Your task to perform on an android device: Open Reddit.com Image 0: 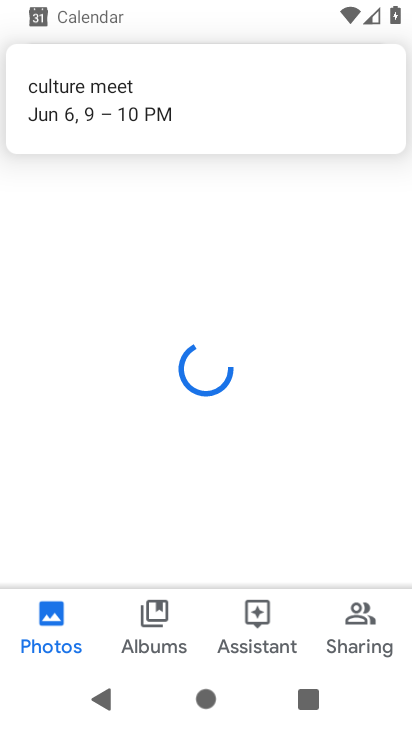
Step 0: press home button
Your task to perform on an android device: Open Reddit.com Image 1: 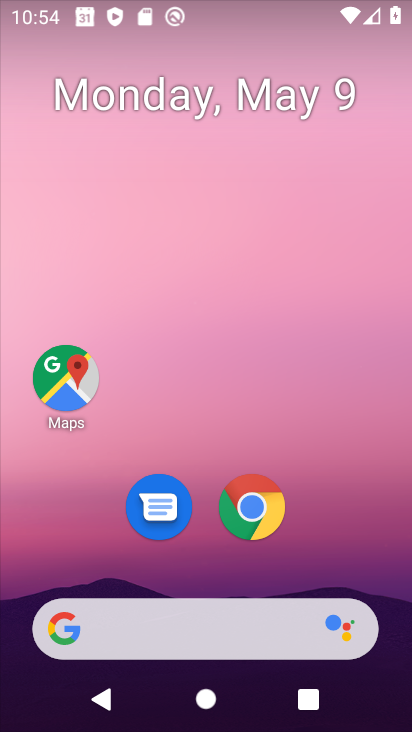
Step 1: click (256, 508)
Your task to perform on an android device: Open Reddit.com Image 2: 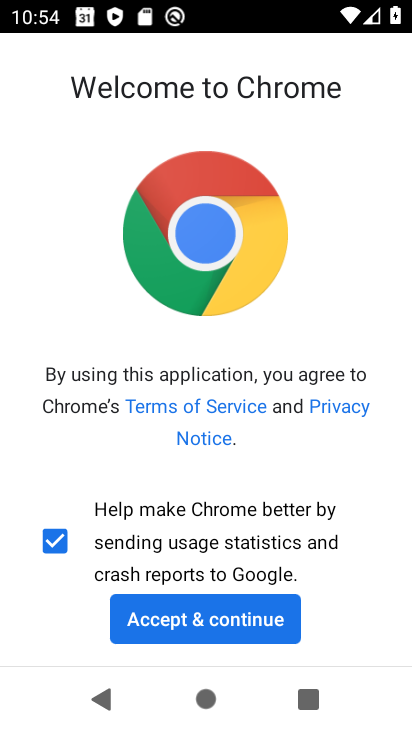
Step 2: click (236, 610)
Your task to perform on an android device: Open Reddit.com Image 3: 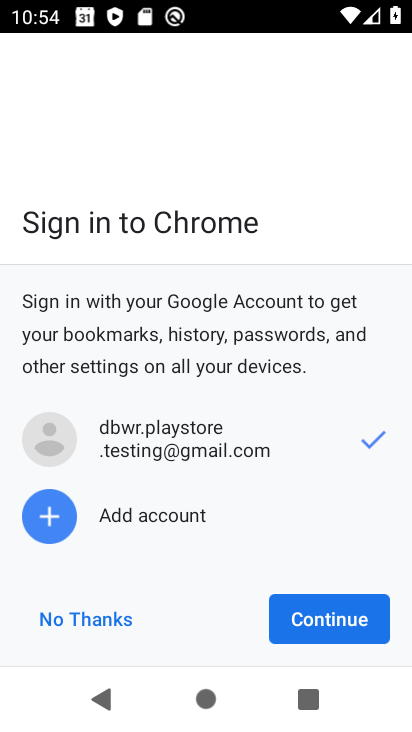
Step 3: click (313, 608)
Your task to perform on an android device: Open Reddit.com Image 4: 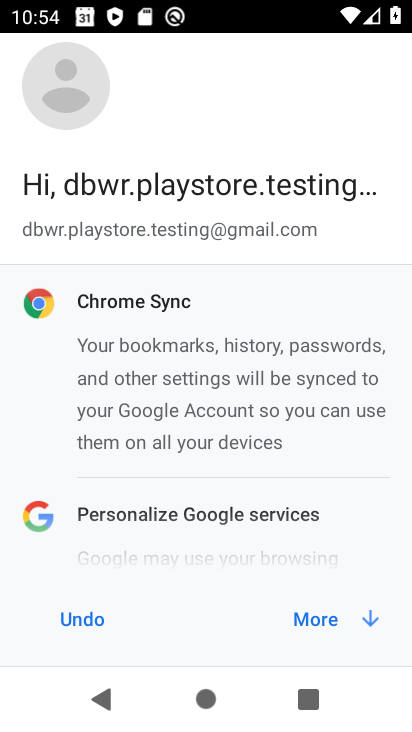
Step 4: click (321, 616)
Your task to perform on an android device: Open Reddit.com Image 5: 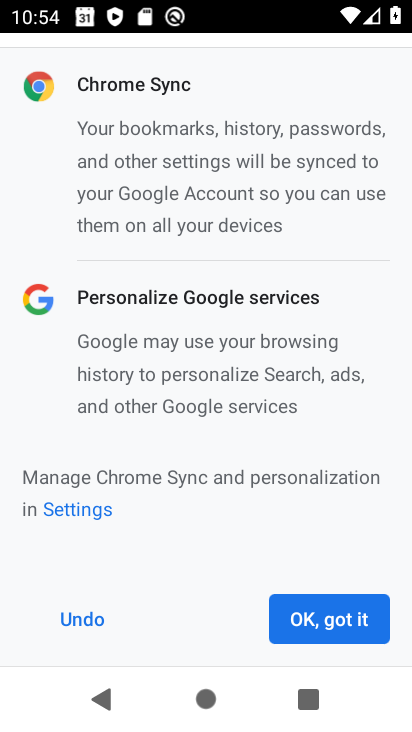
Step 5: click (321, 616)
Your task to perform on an android device: Open Reddit.com Image 6: 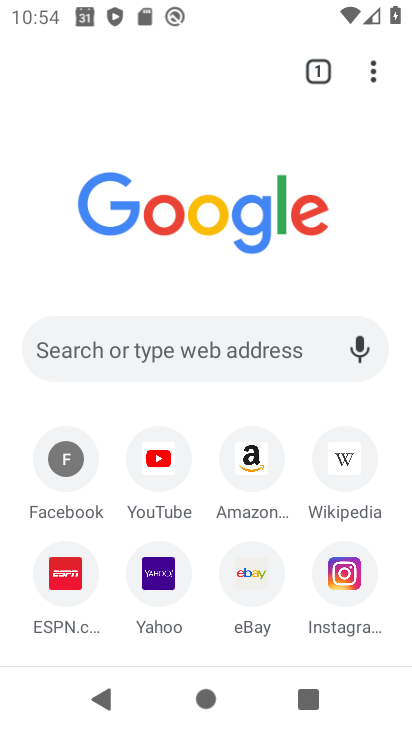
Step 6: click (177, 351)
Your task to perform on an android device: Open Reddit.com Image 7: 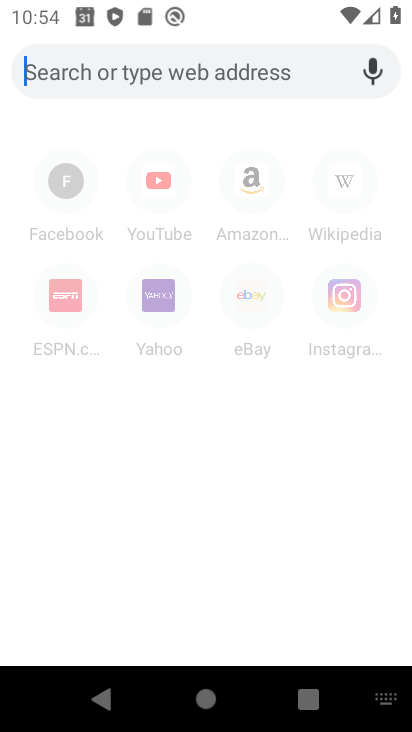
Step 7: type "reddit.com"
Your task to perform on an android device: Open Reddit.com Image 8: 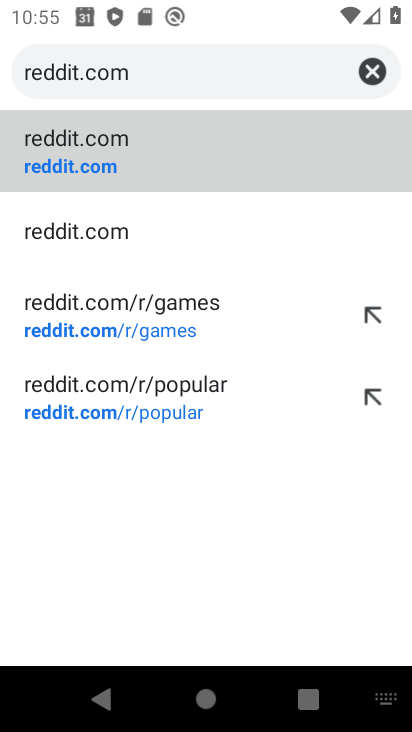
Step 8: click (170, 143)
Your task to perform on an android device: Open Reddit.com Image 9: 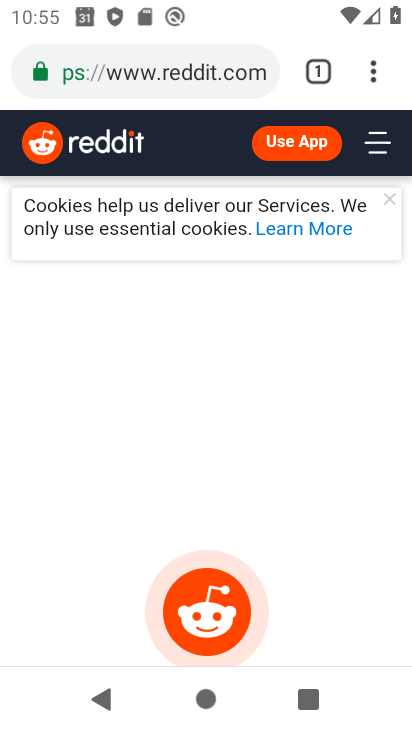
Step 9: task complete